Your task to perform on an android device: Go to Wikipedia Image 0: 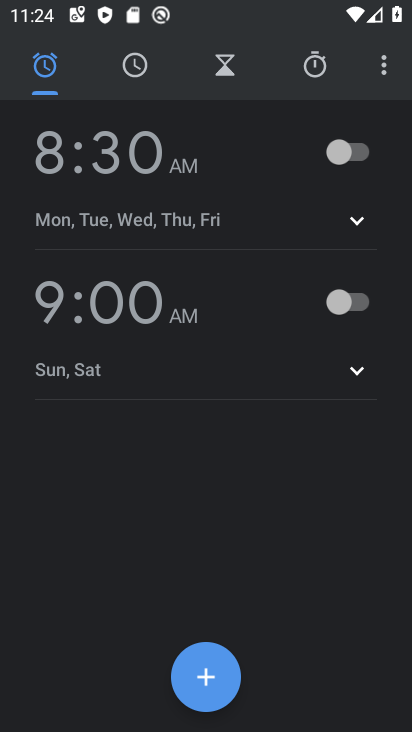
Step 0: press home button
Your task to perform on an android device: Go to Wikipedia Image 1: 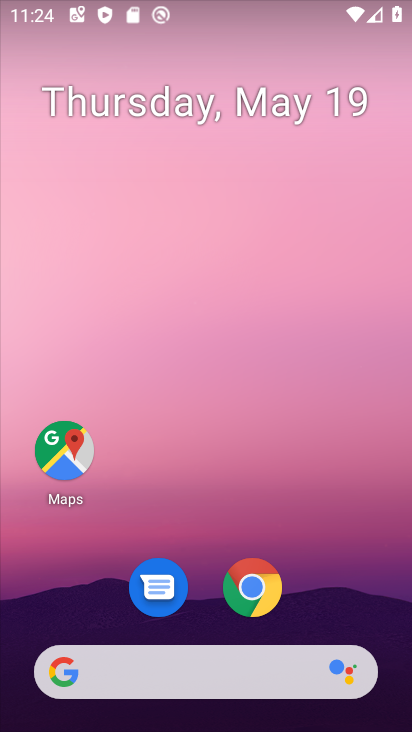
Step 1: click (259, 607)
Your task to perform on an android device: Go to Wikipedia Image 2: 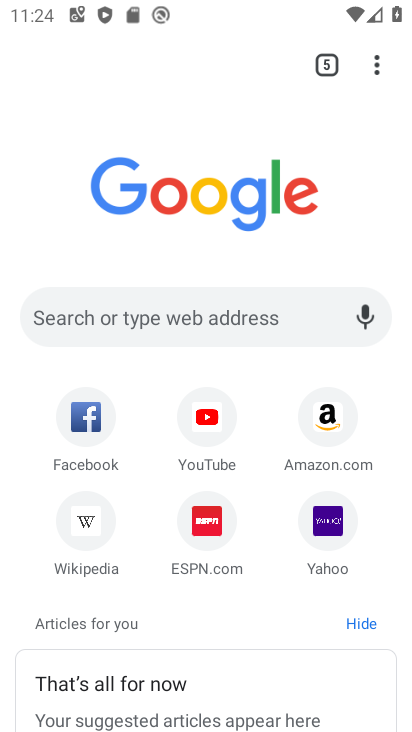
Step 2: click (102, 548)
Your task to perform on an android device: Go to Wikipedia Image 3: 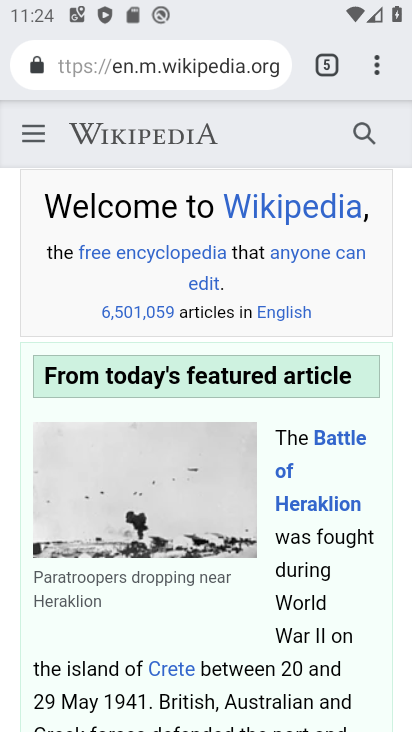
Step 3: task complete